Your task to perform on an android device: turn off picture-in-picture Image 0: 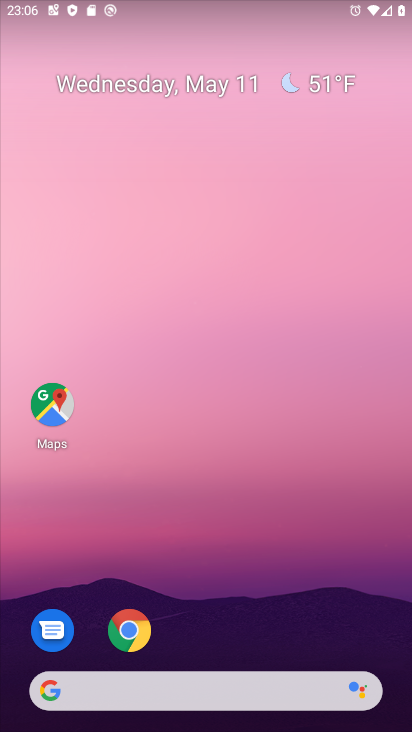
Step 0: drag from (217, 729) to (213, 116)
Your task to perform on an android device: turn off picture-in-picture Image 1: 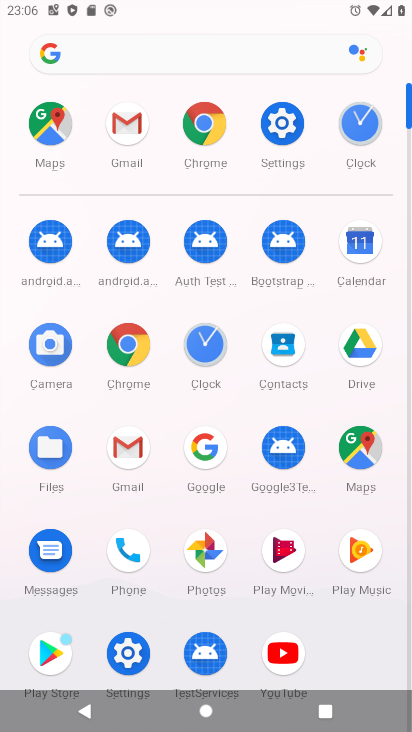
Step 1: click (280, 128)
Your task to perform on an android device: turn off picture-in-picture Image 2: 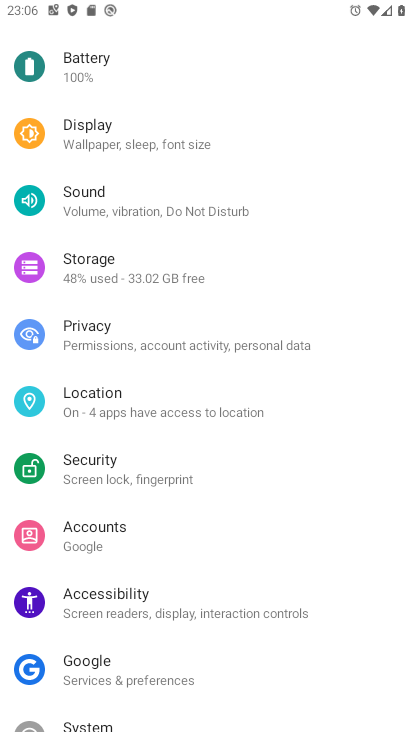
Step 2: drag from (152, 646) to (168, 597)
Your task to perform on an android device: turn off picture-in-picture Image 3: 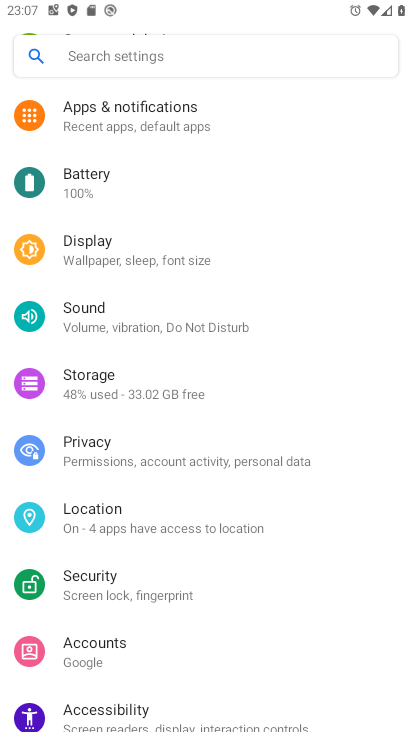
Step 3: drag from (226, 178) to (243, 547)
Your task to perform on an android device: turn off picture-in-picture Image 4: 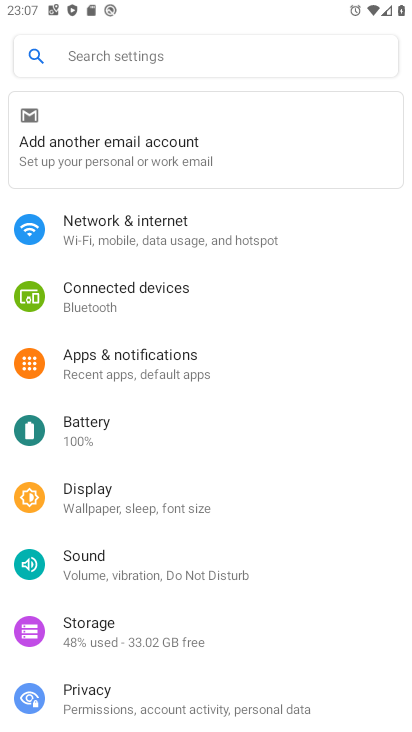
Step 4: click (142, 373)
Your task to perform on an android device: turn off picture-in-picture Image 5: 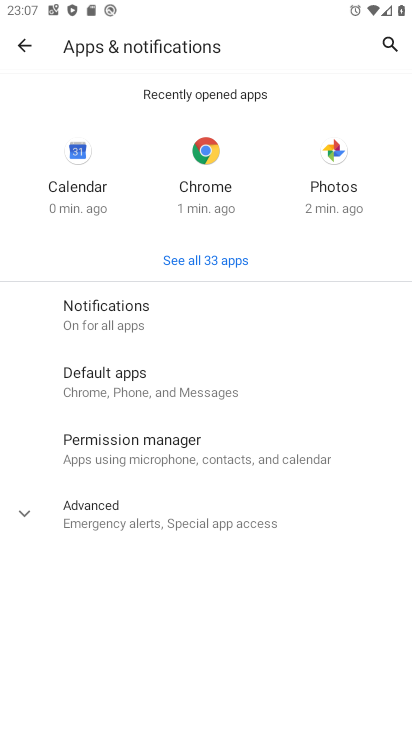
Step 5: click (81, 520)
Your task to perform on an android device: turn off picture-in-picture Image 6: 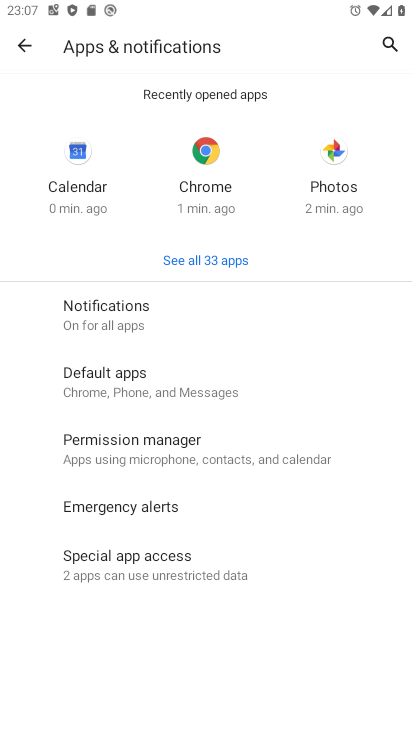
Step 6: click (110, 555)
Your task to perform on an android device: turn off picture-in-picture Image 7: 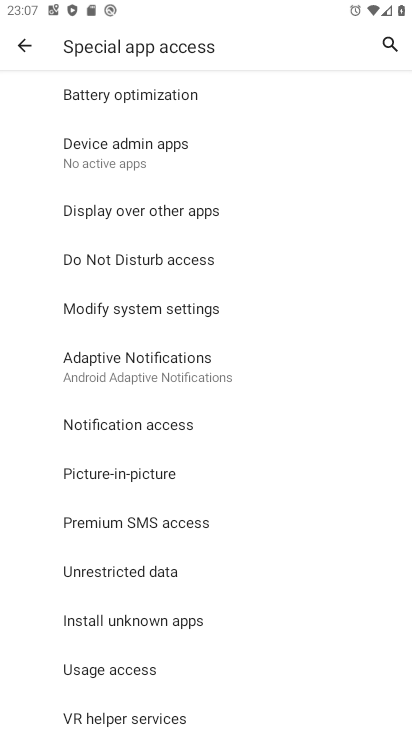
Step 7: click (130, 472)
Your task to perform on an android device: turn off picture-in-picture Image 8: 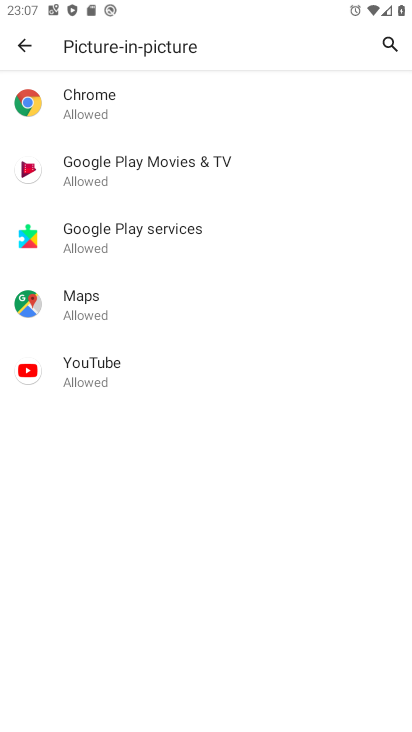
Step 8: click (102, 364)
Your task to perform on an android device: turn off picture-in-picture Image 9: 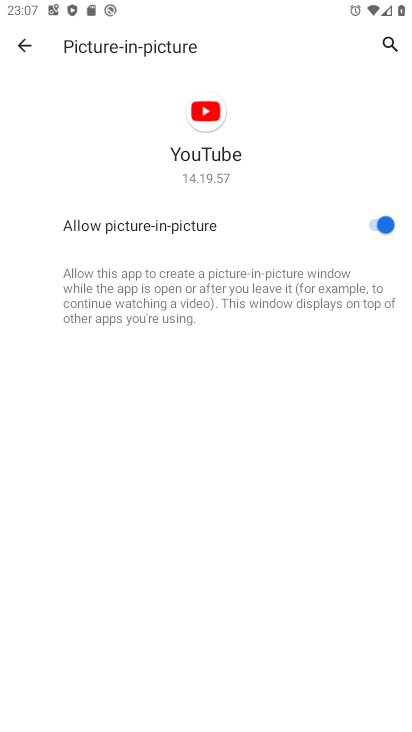
Step 9: click (375, 224)
Your task to perform on an android device: turn off picture-in-picture Image 10: 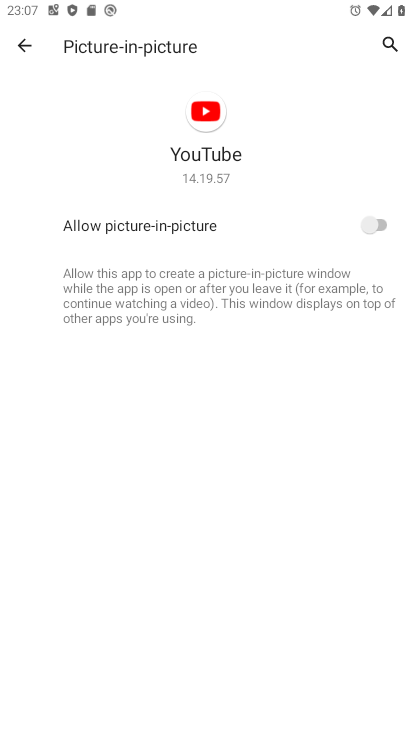
Step 10: task complete